Your task to perform on an android device: Clear all items from cart on costco.com. Add alienware aurora to the cart on costco.com Image 0: 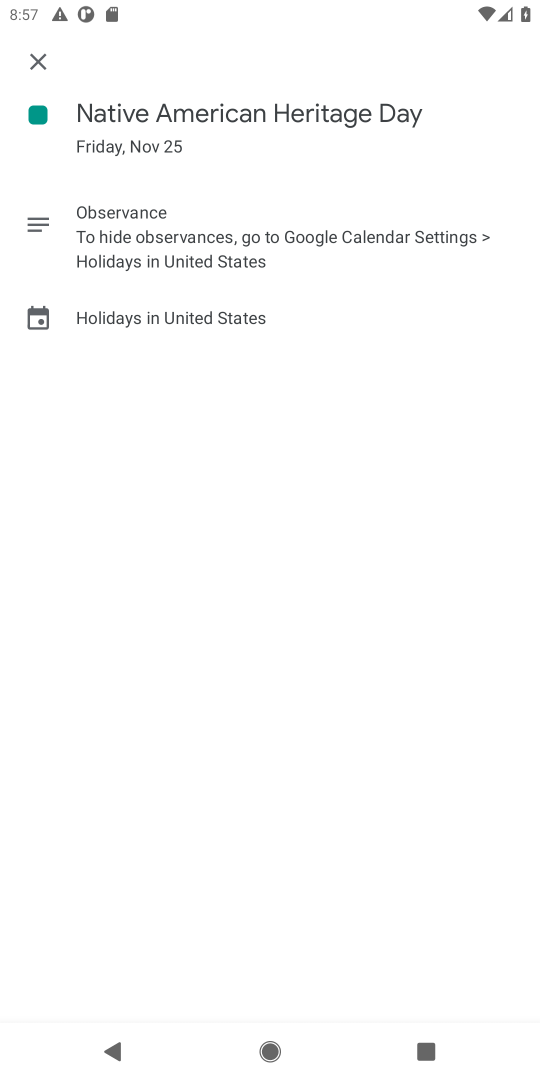
Step 0: click (254, 951)
Your task to perform on an android device: Clear all items from cart on costco.com. Add alienware aurora to the cart on costco.com Image 1: 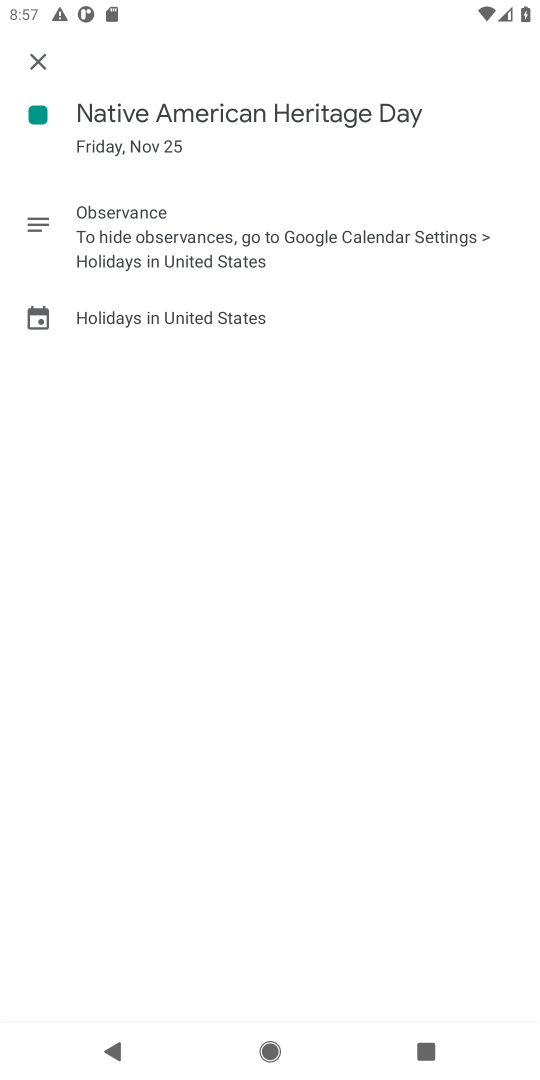
Step 1: press home button
Your task to perform on an android device: Clear all items from cart on costco.com. Add alienware aurora to the cart on costco.com Image 2: 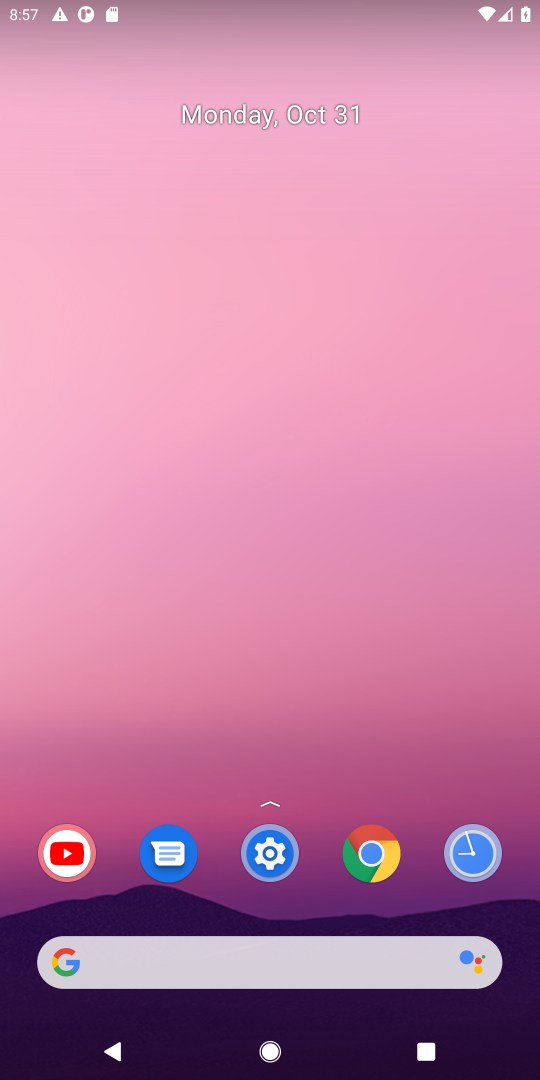
Step 2: click (377, 953)
Your task to perform on an android device: Clear all items from cart on costco.com. Add alienware aurora to the cart on costco.com Image 3: 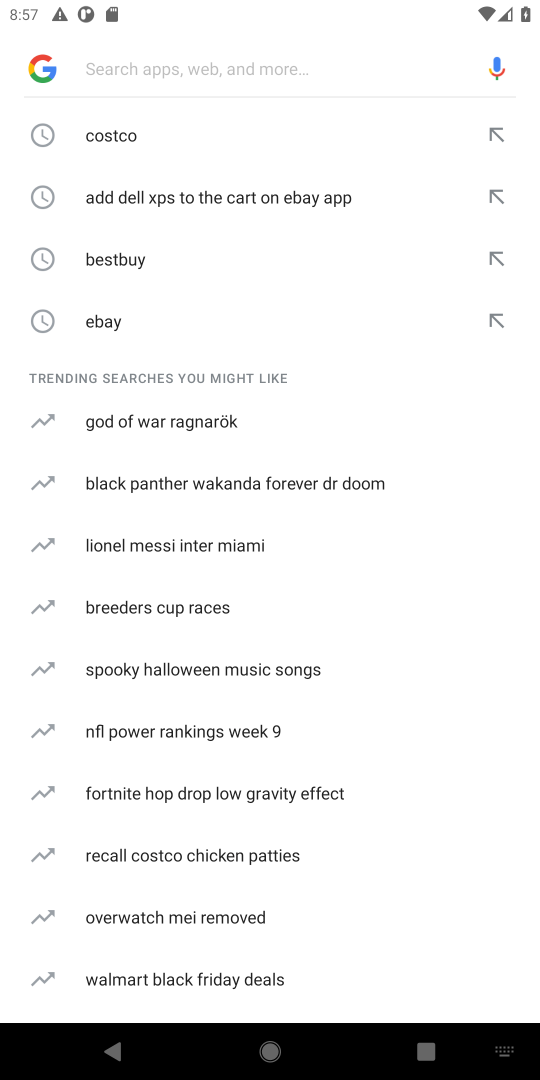
Step 3: type "c"
Your task to perform on an android device: Clear all items from cart on costco.com. Add alienware aurora to the cart on costco.com Image 4: 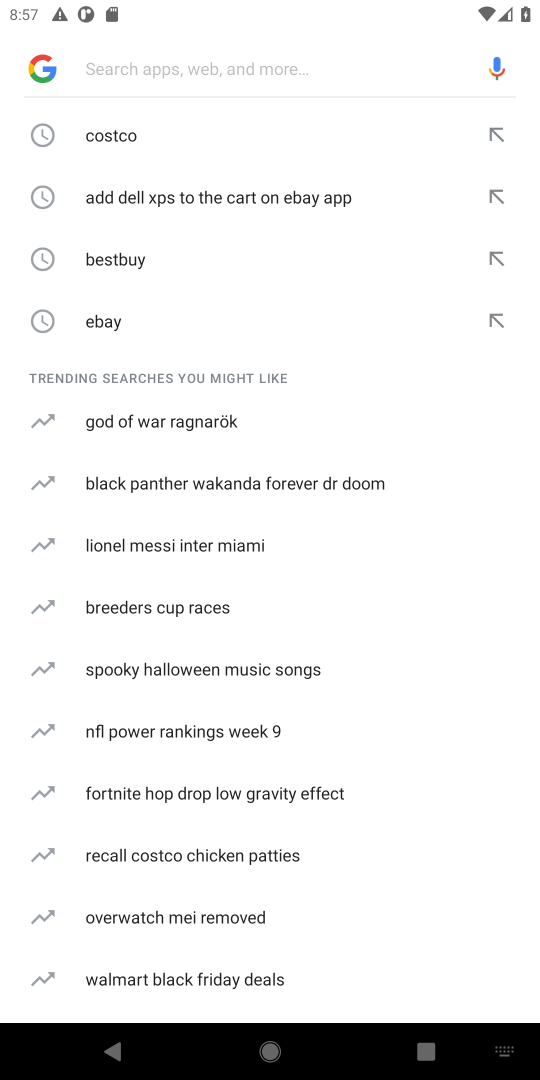
Step 4: click (123, 135)
Your task to perform on an android device: Clear all items from cart on costco.com. Add alienware aurora to the cart on costco.com Image 5: 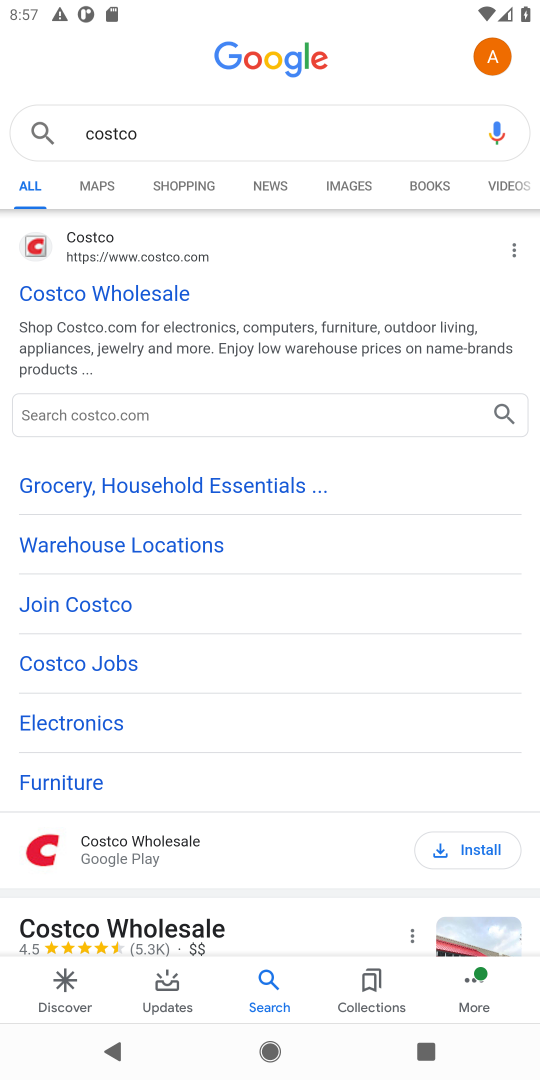
Step 5: click (73, 289)
Your task to perform on an android device: Clear all items from cart on costco.com. Add alienware aurora to the cart on costco.com Image 6: 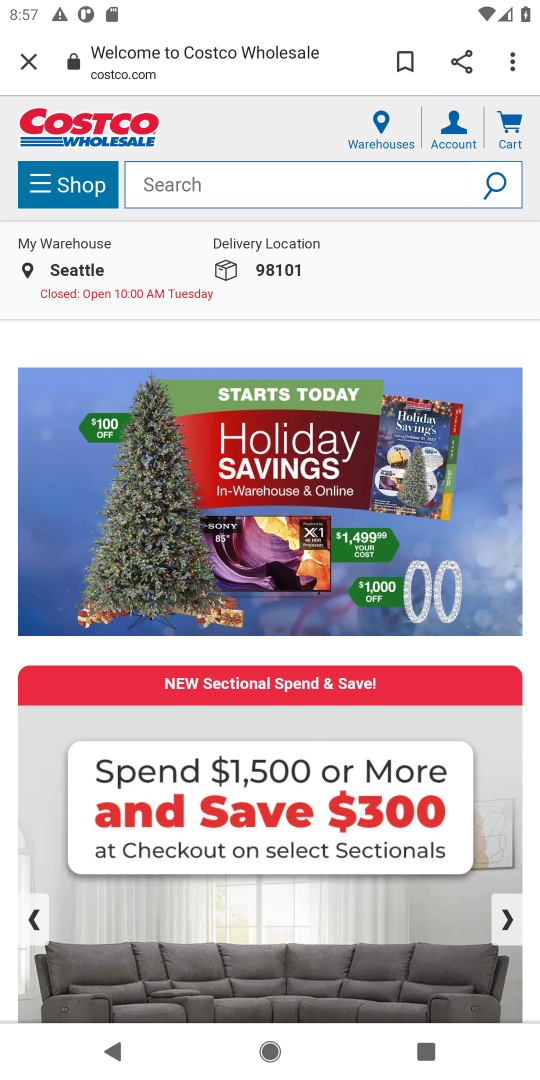
Step 6: click (269, 187)
Your task to perform on an android device: Clear all items from cart on costco.com. Add alienware aurora to the cart on costco.com Image 7: 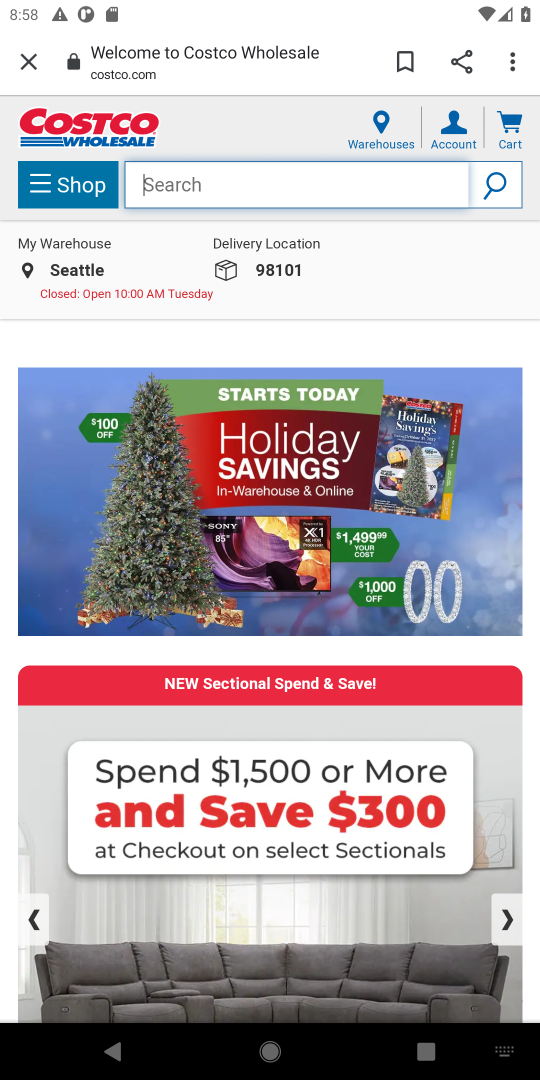
Step 7: type "alienware aurora"
Your task to perform on an android device: Clear all items from cart on costco.com. Add alienware aurora to the cart on costco.com Image 8: 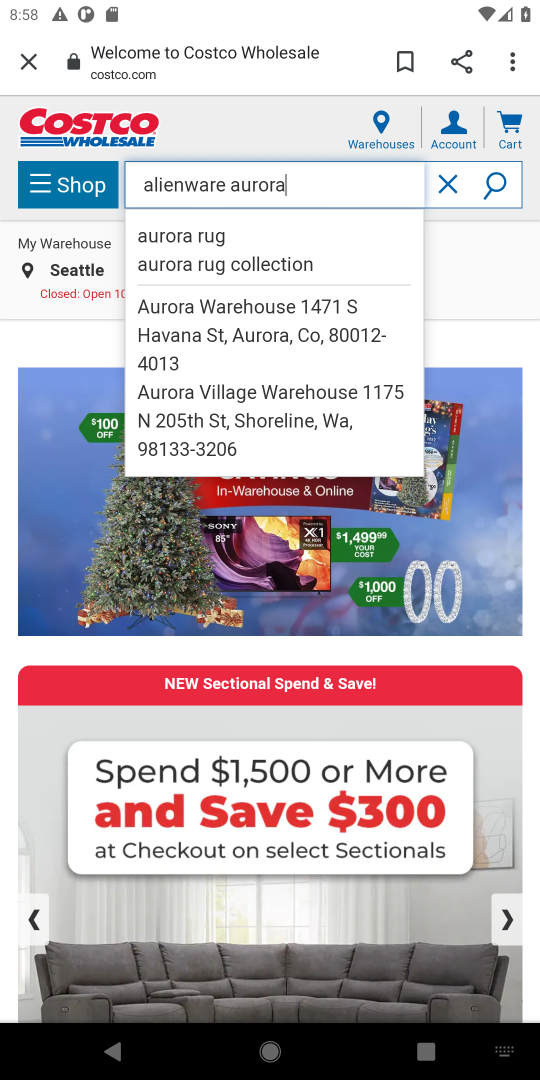
Step 8: click (204, 232)
Your task to perform on an android device: Clear all items from cart on costco.com. Add alienware aurora to the cart on costco.com Image 9: 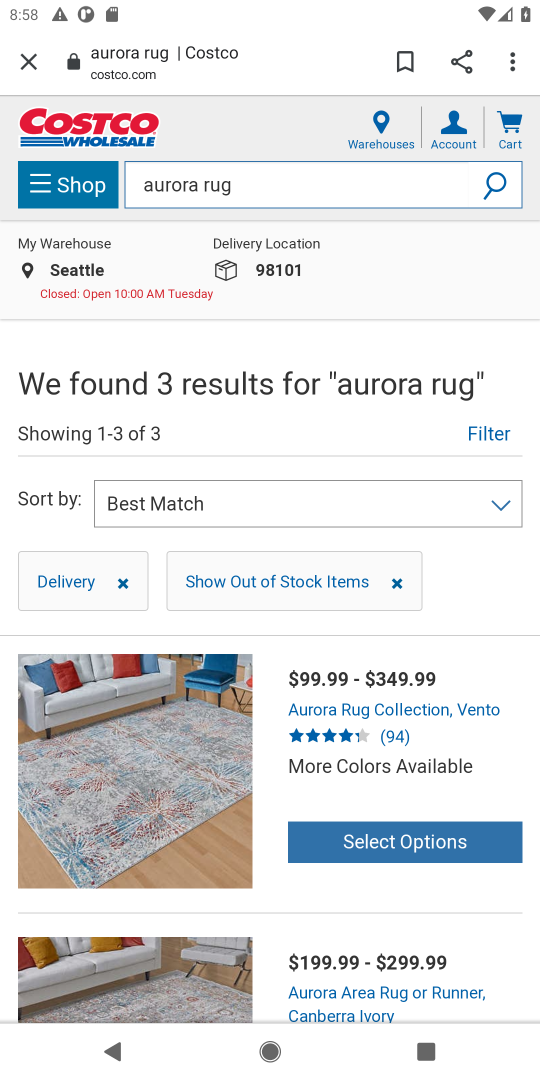
Step 9: click (343, 676)
Your task to perform on an android device: Clear all items from cart on costco.com. Add alienware aurora to the cart on costco.com Image 10: 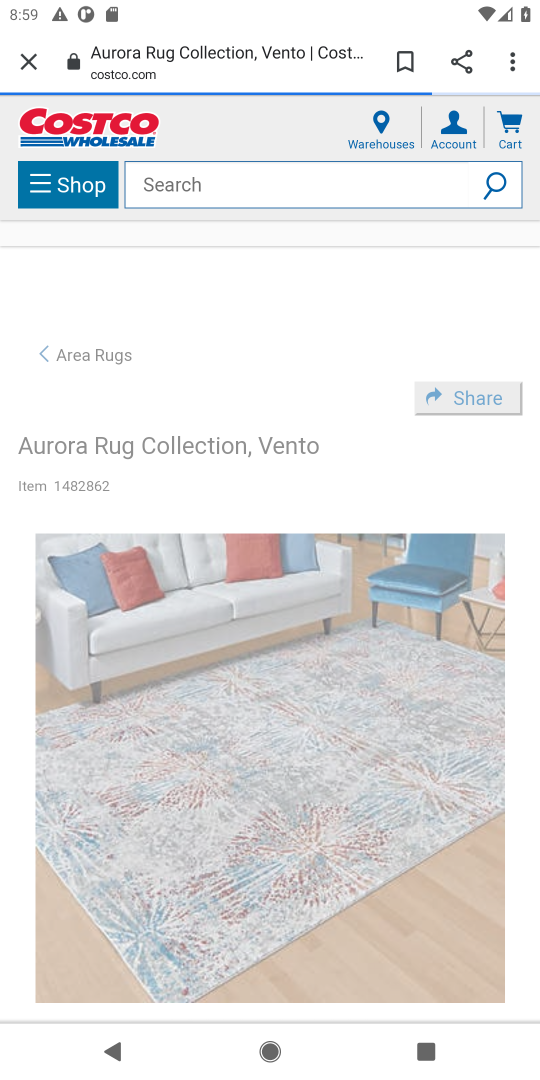
Step 10: drag from (249, 887) to (195, 435)
Your task to perform on an android device: Clear all items from cart on costco.com. Add alienware aurora to the cart on costco.com Image 11: 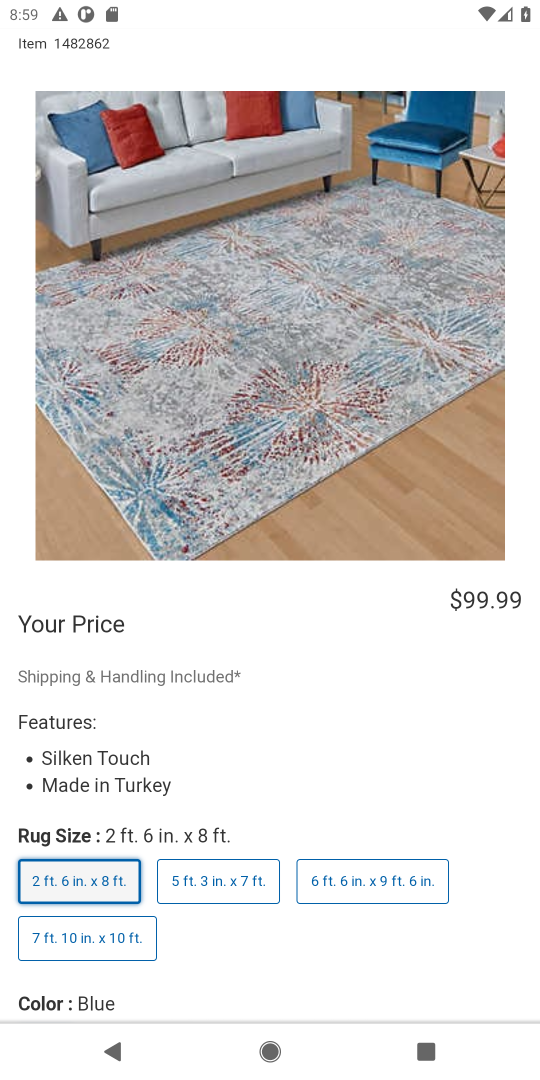
Step 11: drag from (372, 687) to (327, 380)
Your task to perform on an android device: Clear all items from cart on costco.com. Add alienware aurora to the cart on costco.com Image 12: 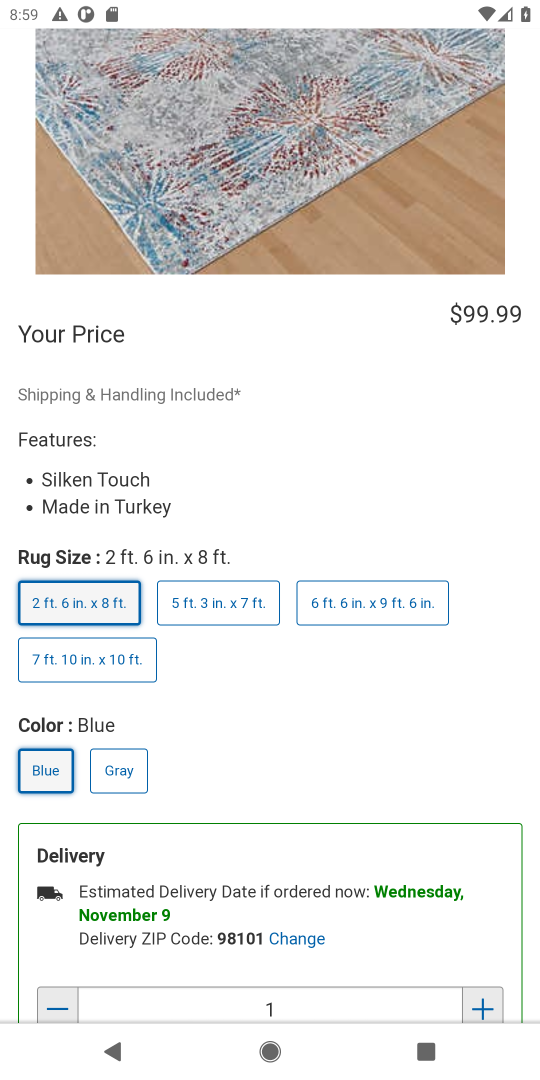
Step 12: drag from (329, 707) to (299, 355)
Your task to perform on an android device: Clear all items from cart on costco.com. Add alienware aurora to the cart on costco.com Image 13: 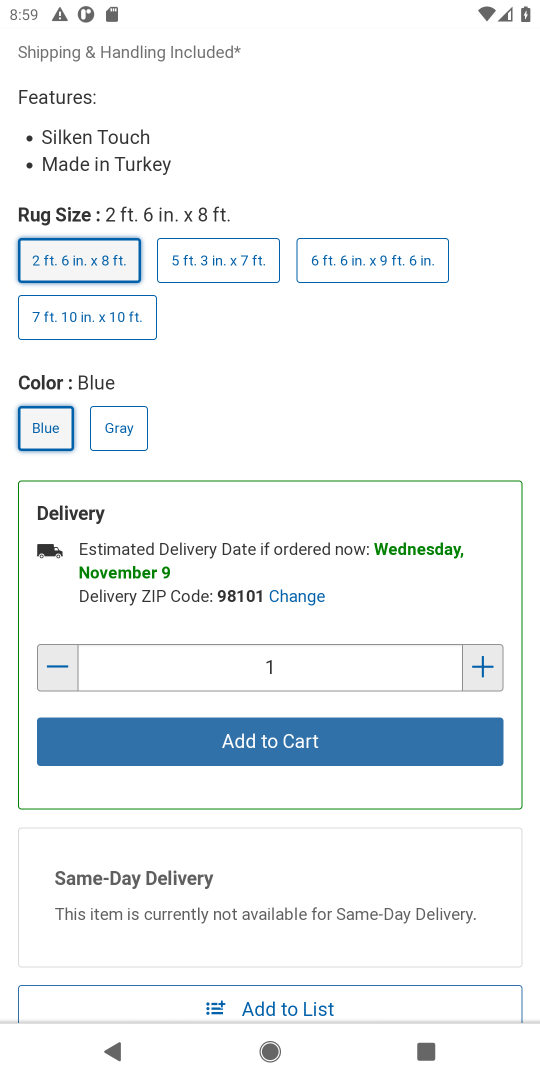
Step 13: click (267, 746)
Your task to perform on an android device: Clear all items from cart on costco.com. Add alienware aurora to the cart on costco.com Image 14: 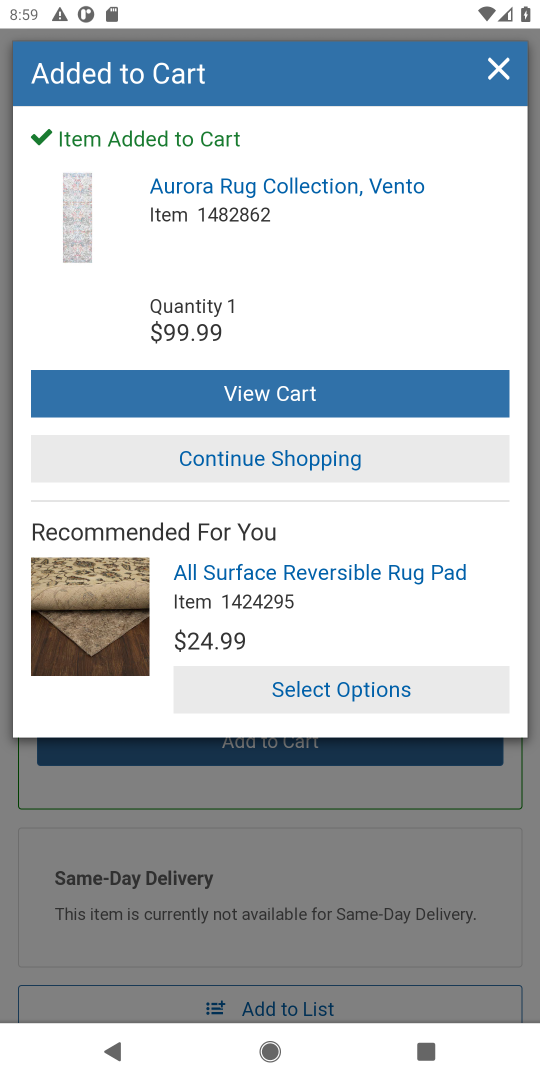
Step 14: click (500, 65)
Your task to perform on an android device: Clear all items from cart on costco.com. Add alienware aurora to the cart on costco.com Image 15: 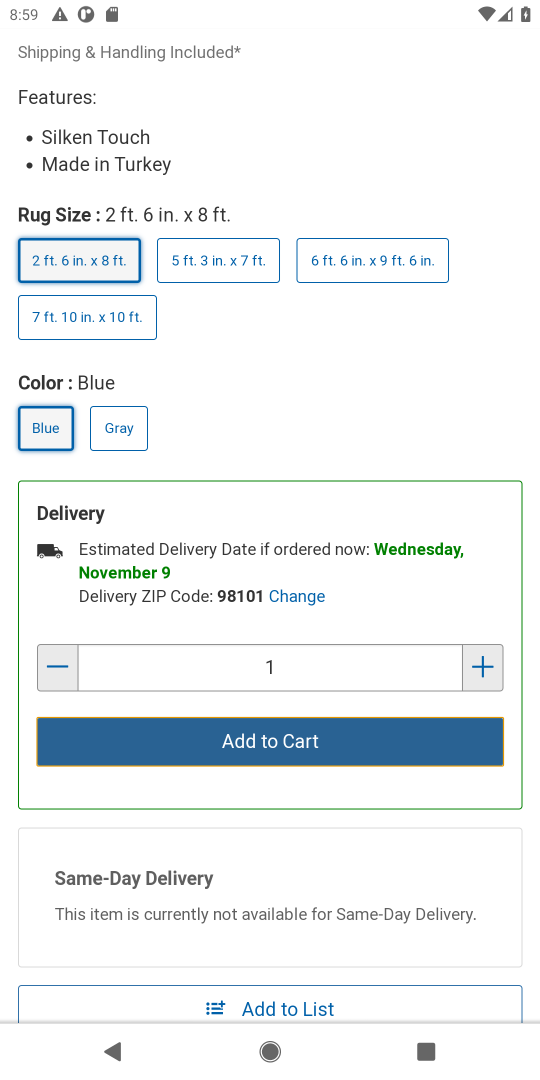
Step 15: task complete